Your task to perform on an android device: turn off airplane mode Image 0: 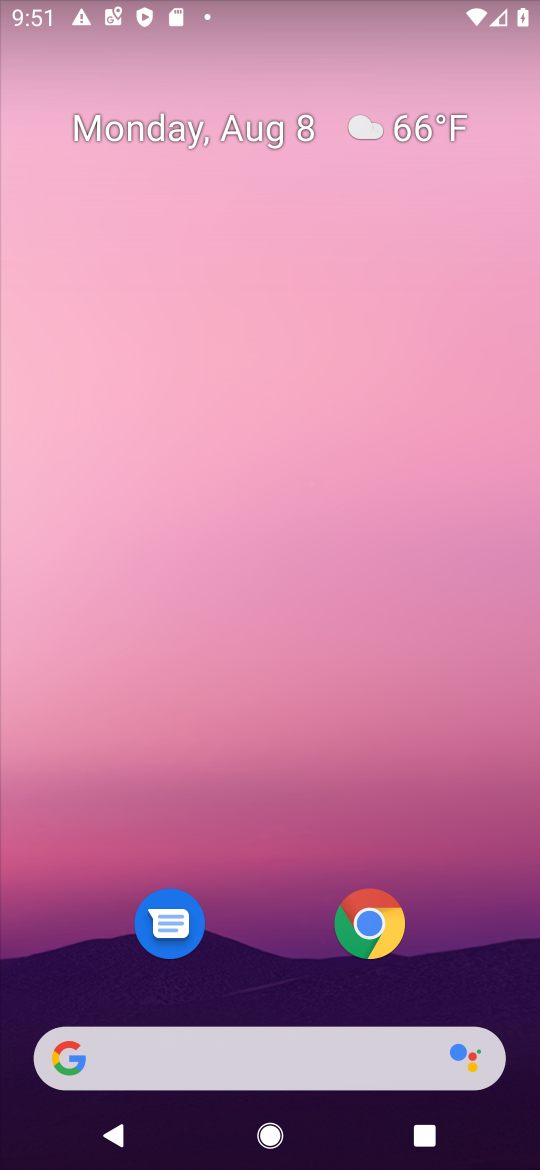
Step 0: drag from (41, 1137) to (308, 405)
Your task to perform on an android device: turn off airplane mode Image 1: 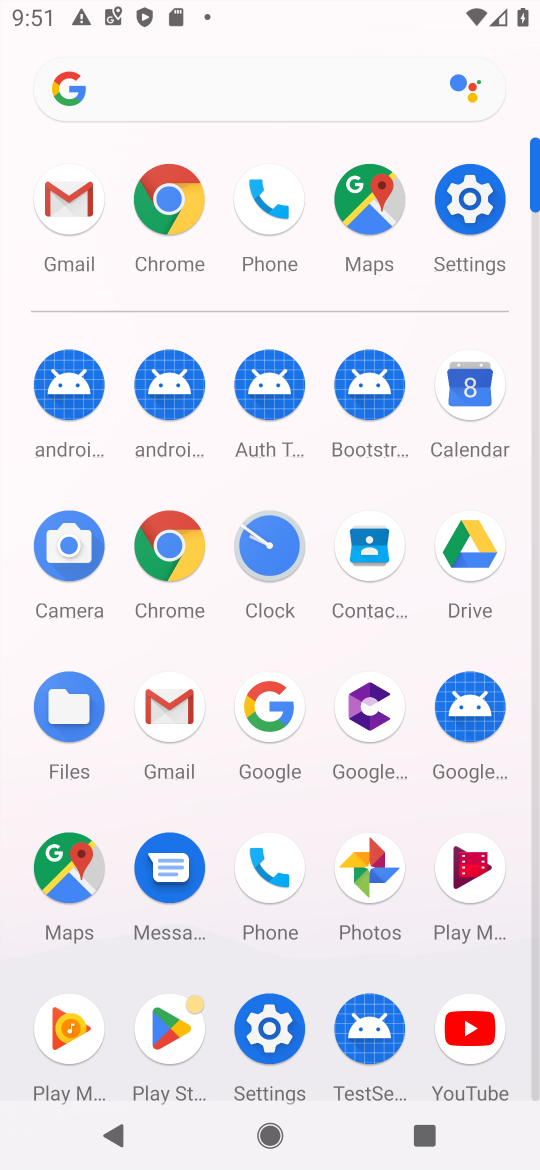
Step 1: click (473, 214)
Your task to perform on an android device: turn off airplane mode Image 2: 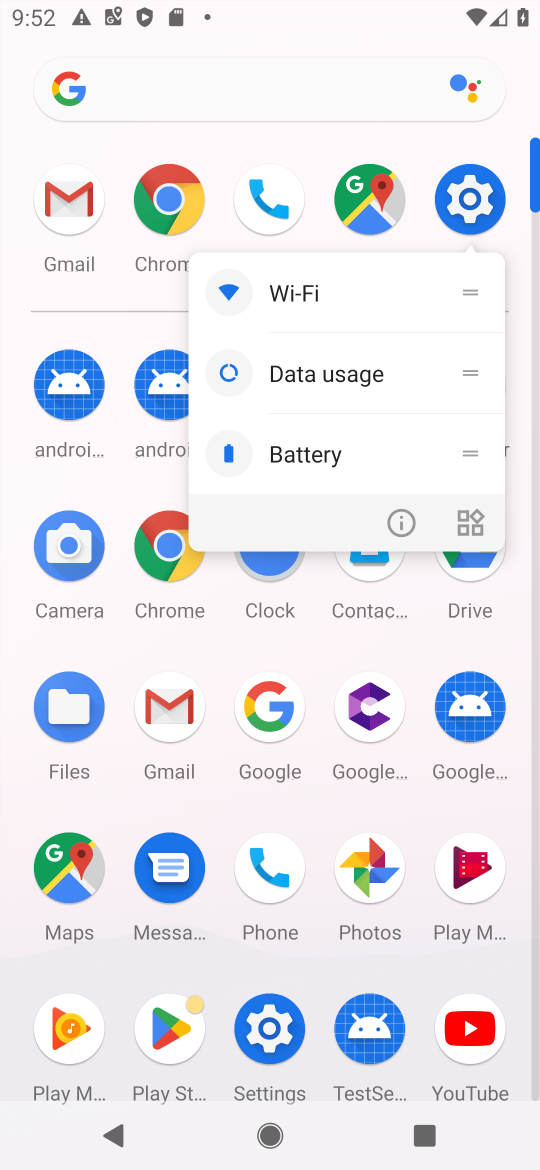
Step 2: click (465, 212)
Your task to perform on an android device: turn off airplane mode Image 3: 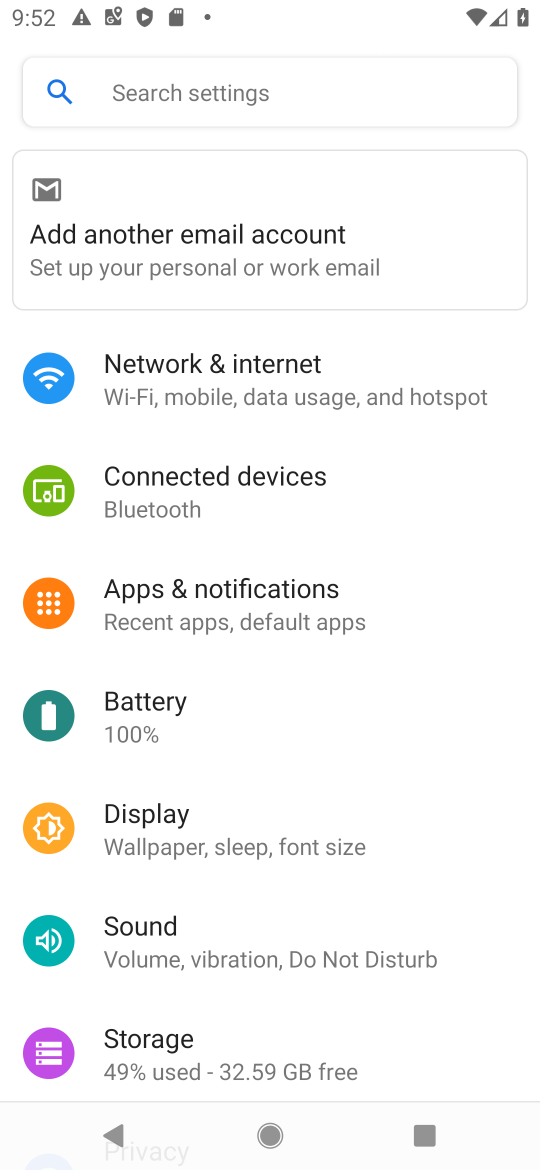
Step 3: click (304, 356)
Your task to perform on an android device: turn off airplane mode Image 4: 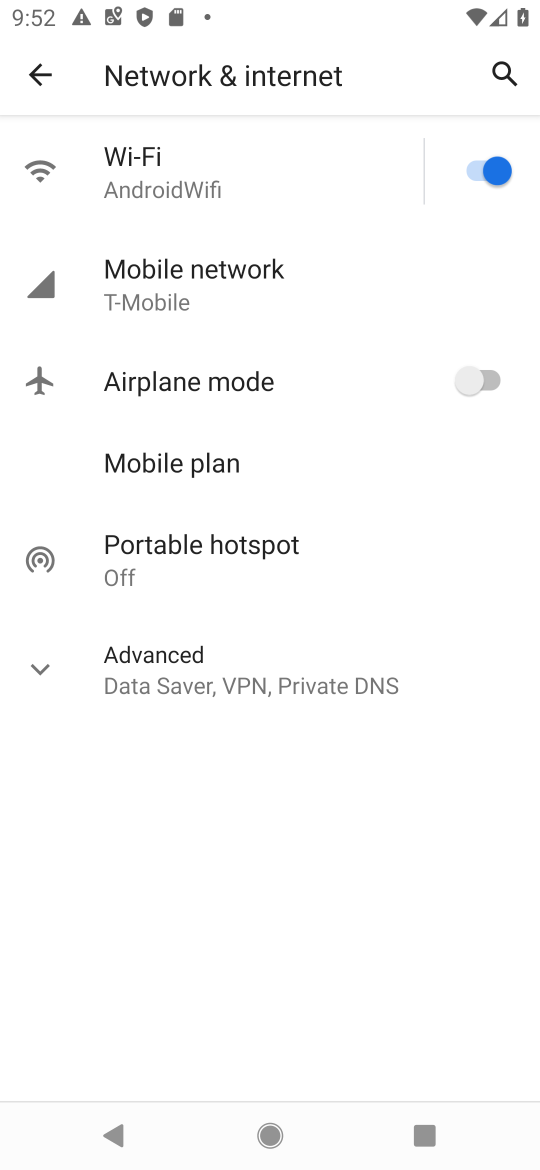
Step 4: task complete